Your task to perform on an android device: see creations saved in the google photos Image 0: 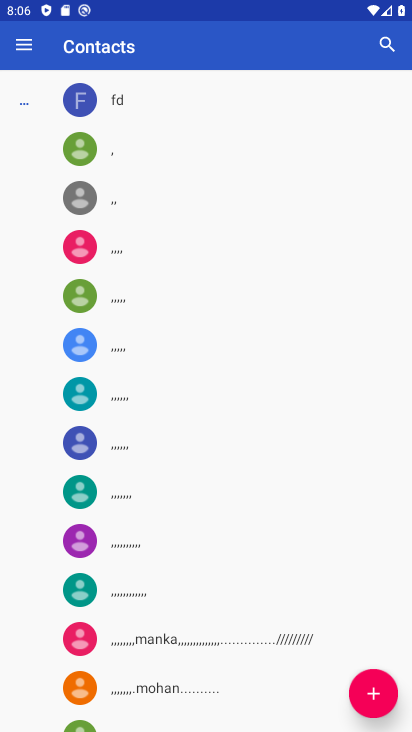
Step 0: press home button
Your task to perform on an android device: see creations saved in the google photos Image 1: 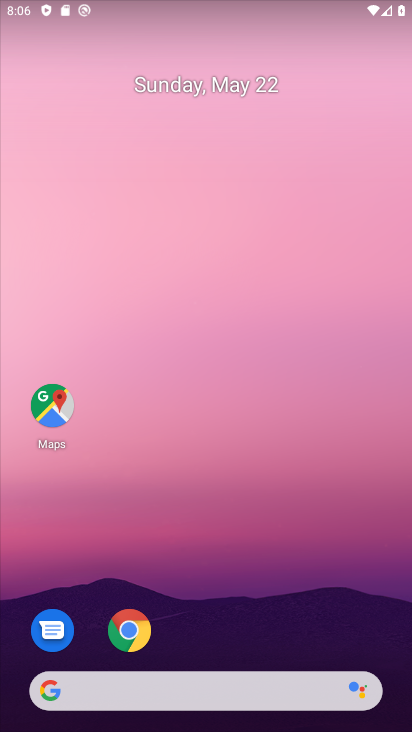
Step 1: drag from (218, 621) to (265, 95)
Your task to perform on an android device: see creations saved in the google photos Image 2: 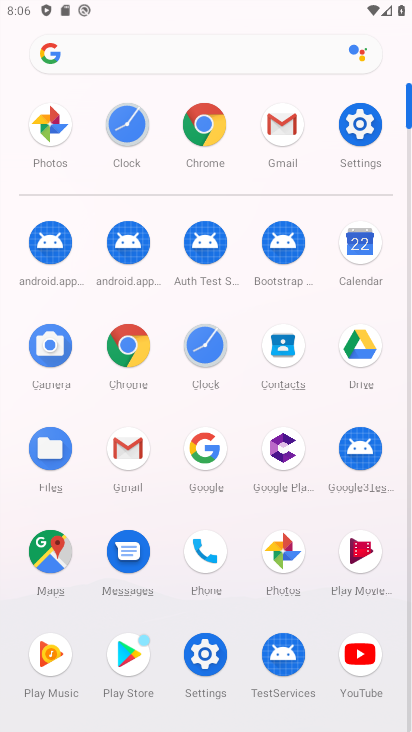
Step 2: click (274, 543)
Your task to perform on an android device: see creations saved in the google photos Image 3: 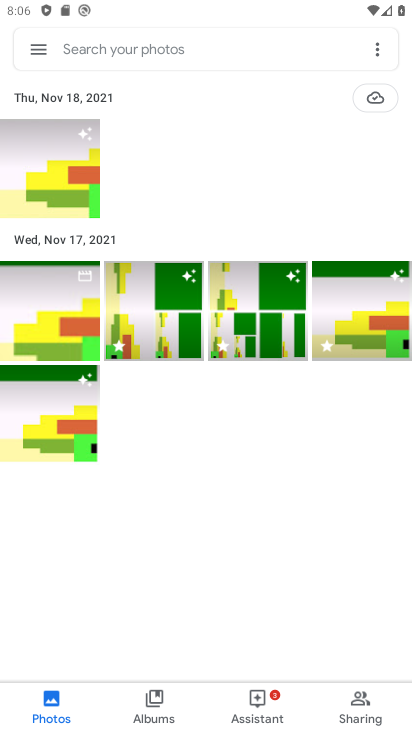
Step 3: task complete